Your task to perform on an android device: Check the news Image 0: 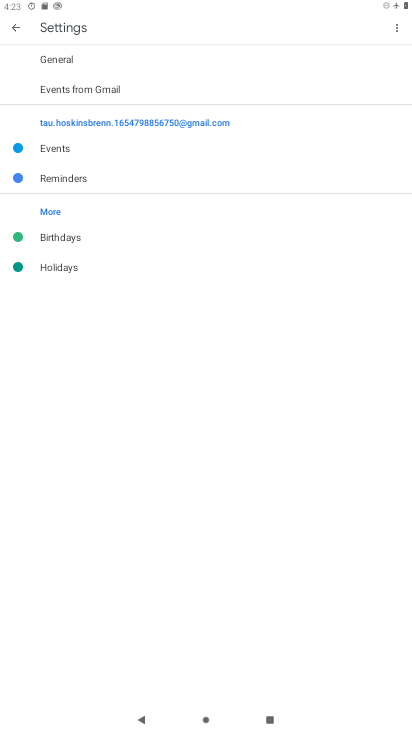
Step 0: press home button
Your task to perform on an android device: Check the news Image 1: 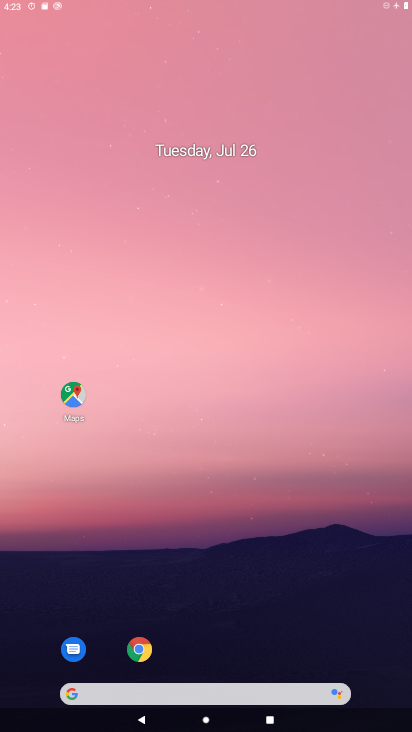
Step 1: drag from (375, 641) to (230, 21)
Your task to perform on an android device: Check the news Image 2: 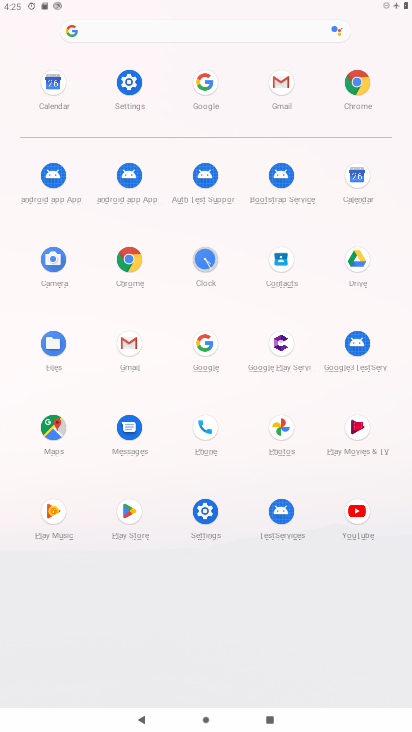
Step 2: click (202, 348)
Your task to perform on an android device: Check the news Image 3: 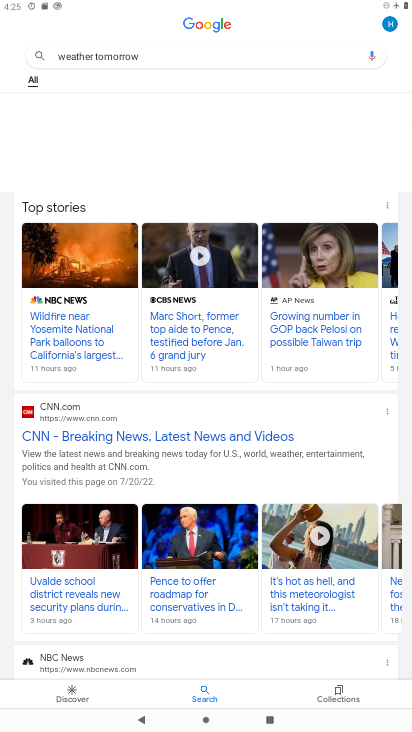
Step 3: press back button
Your task to perform on an android device: Check the news Image 4: 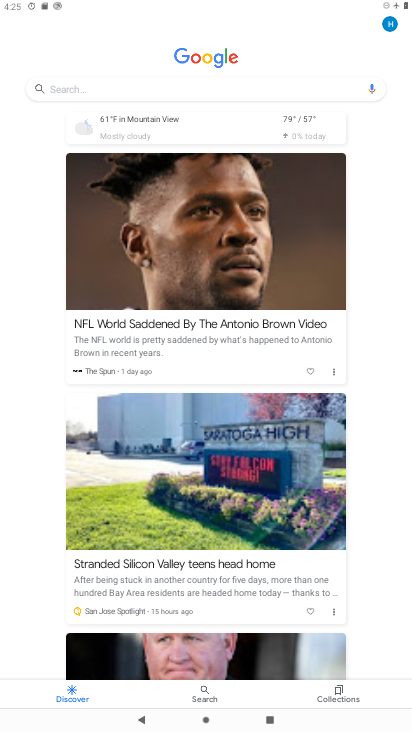
Step 4: click (50, 83)
Your task to perform on an android device: Check the news Image 5: 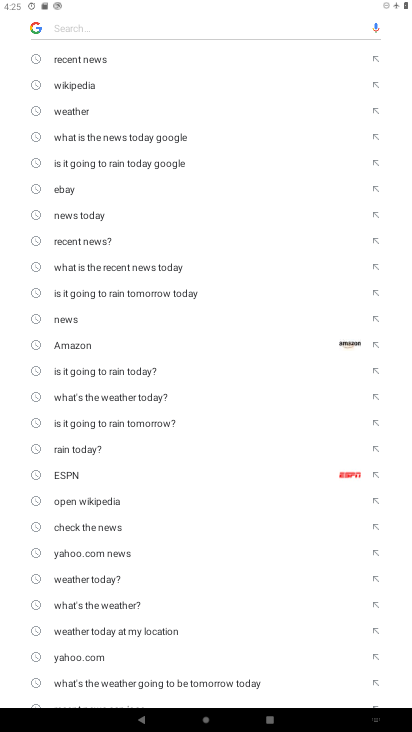
Step 5: click (74, 327)
Your task to perform on an android device: Check the news Image 6: 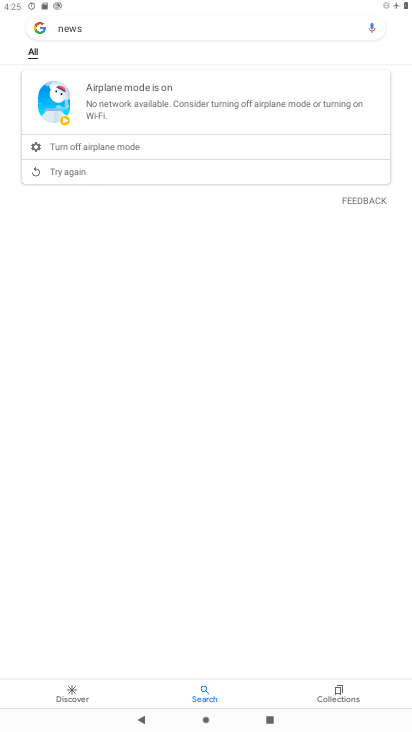
Step 6: task complete